Your task to perform on an android device: toggle improve location accuracy Image 0: 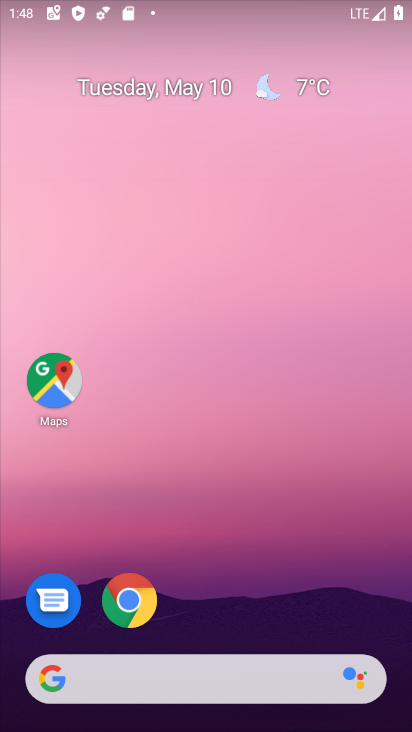
Step 0: drag from (157, 679) to (336, 109)
Your task to perform on an android device: toggle improve location accuracy Image 1: 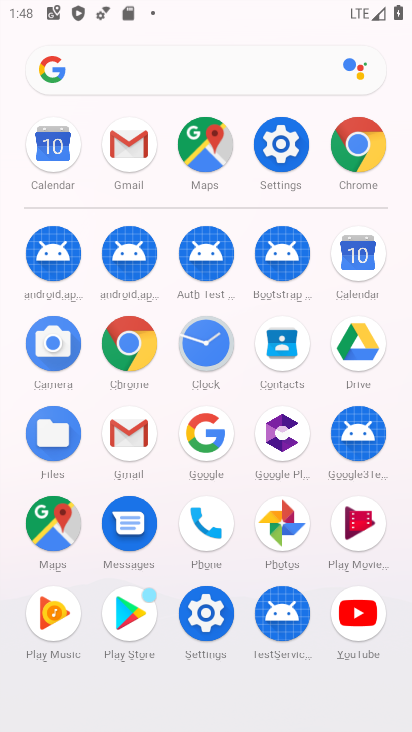
Step 1: click (287, 145)
Your task to perform on an android device: toggle improve location accuracy Image 2: 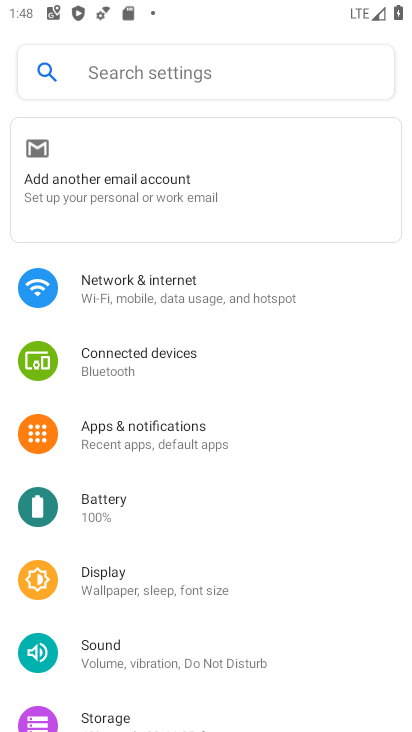
Step 2: drag from (203, 646) to (287, 252)
Your task to perform on an android device: toggle improve location accuracy Image 3: 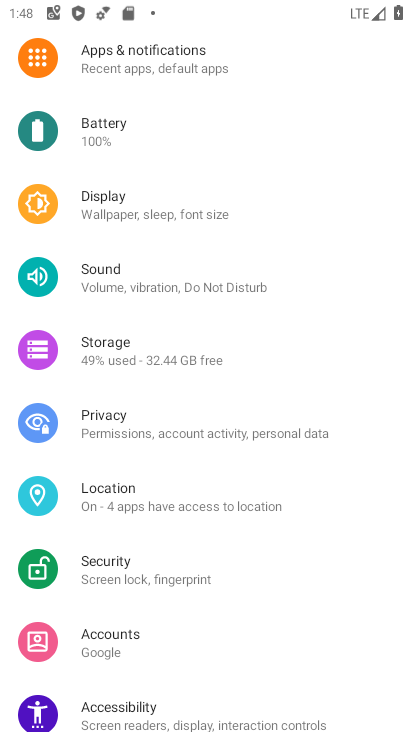
Step 3: click (148, 504)
Your task to perform on an android device: toggle improve location accuracy Image 4: 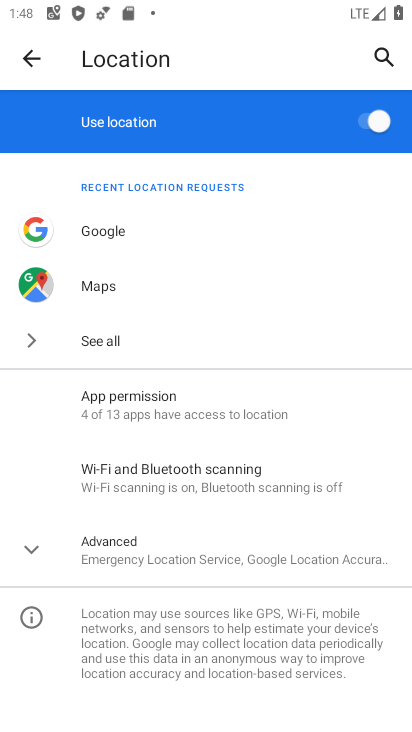
Step 4: click (183, 559)
Your task to perform on an android device: toggle improve location accuracy Image 5: 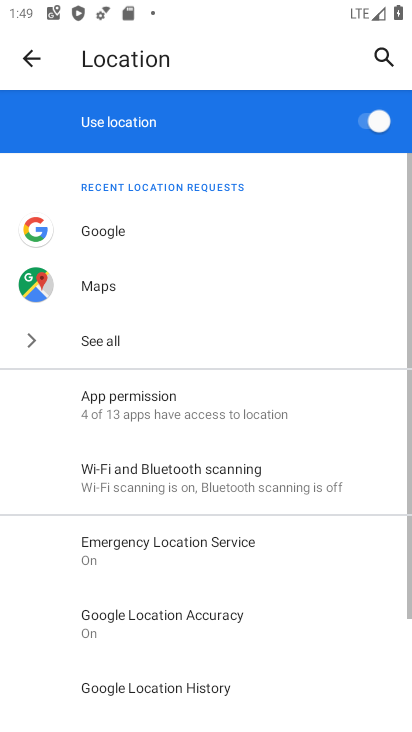
Step 5: drag from (260, 516) to (327, 372)
Your task to perform on an android device: toggle improve location accuracy Image 6: 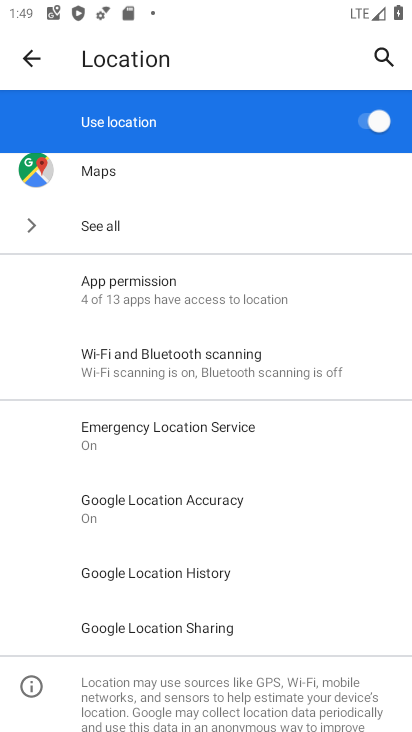
Step 6: click (213, 520)
Your task to perform on an android device: toggle improve location accuracy Image 7: 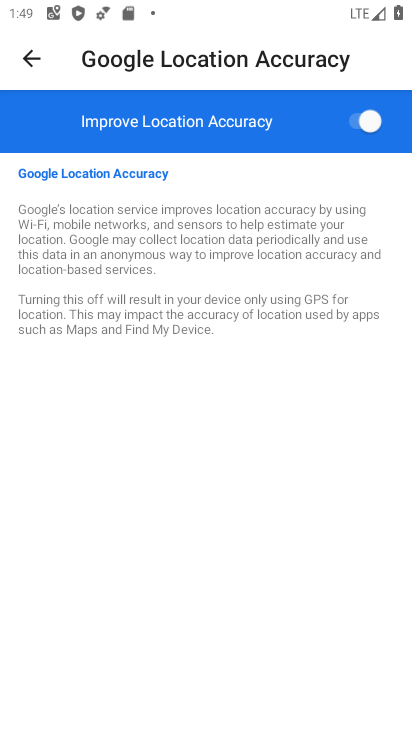
Step 7: click (353, 121)
Your task to perform on an android device: toggle improve location accuracy Image 8: 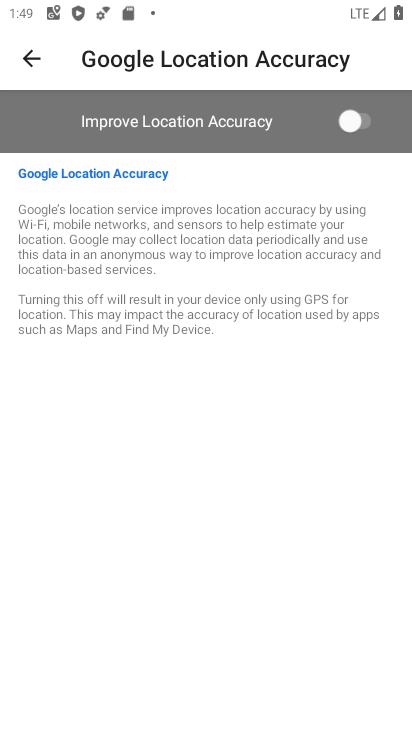
Step 8: task complete